Your task to perform on an android device: open app "Pandora - Music & Podcasts" Image 0: 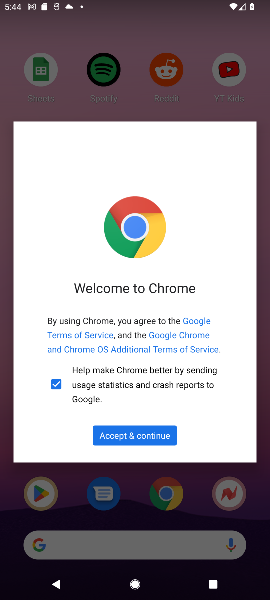
Step 0: press home button
Your task to perform on an android device: open app "Pandora - Music & Podcasts" Image 1: 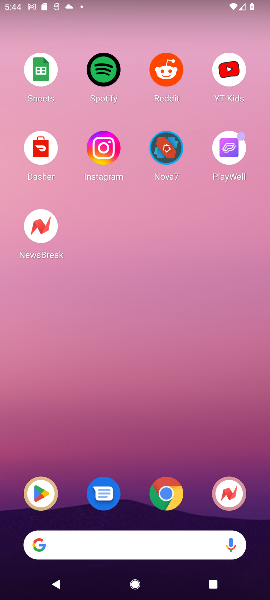
Step 1: click (40, 490)
Your task to perform on an android device: open app "Pandora - Music & Podcasts" Image 2: 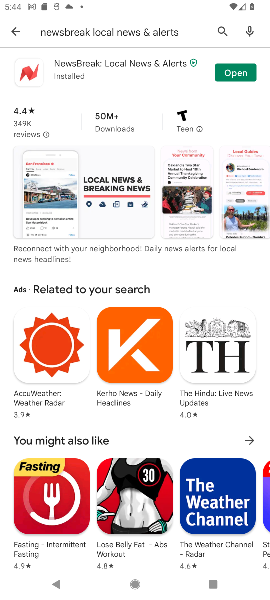
Step 2: click (219, 26)
Your task to perform on an android device: open app "Pandora - Music & Podcasts" Image 3: 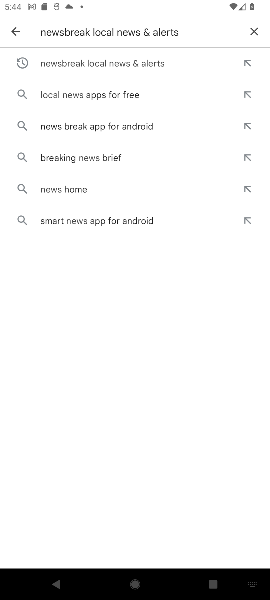
Step 3: click (218, 27)
Your task to perform on an android device: open app "Pandora - Music & Podcasts" Image 4: 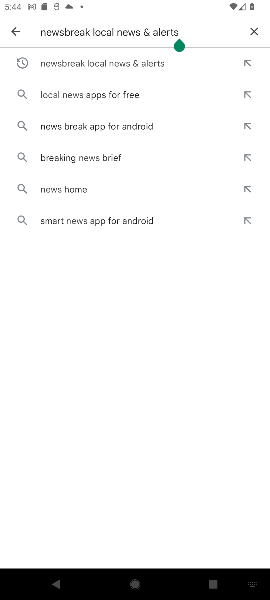
Step 4: click (253, 32)
Your task to perform on an android device: open app "Pandora - Music & Podcasts" Image 5: 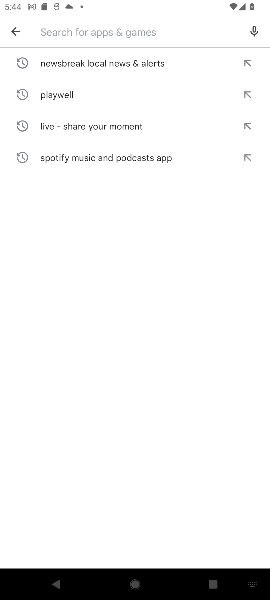
Step 5: type "Pandora - Music & Podcasts"
Your task to perform on an android device: open app "Pandora - Music & Podcasts" Image 6: 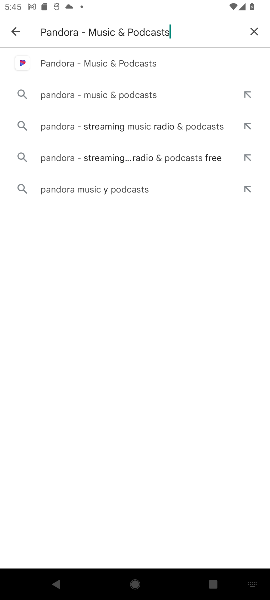
Step 6: click (133, 64)
Your task to perform on an android device: open app "Pandora - Music & Podcasts" Image 7: 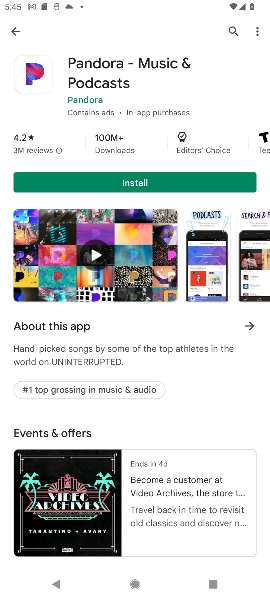
Step 7: task complete